Your task to perform on an android device: install app "Truecaller" Image 0: 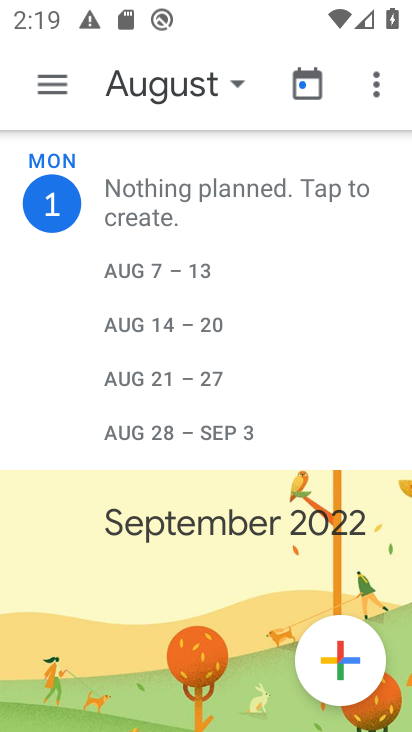
Step 0: press home button
Your task to perform on an android device: install app "Truecaller" Image 1: 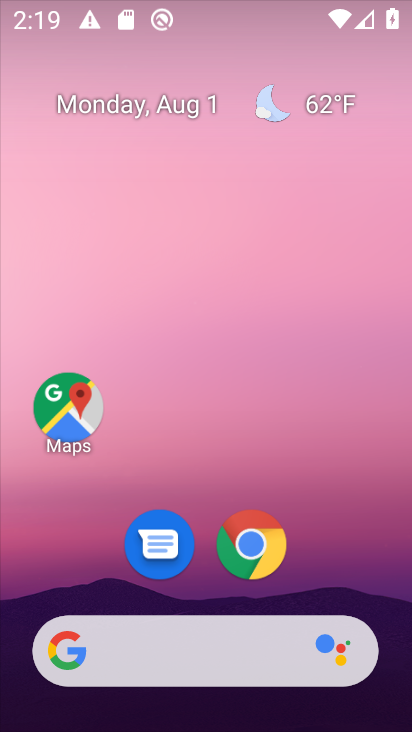
Step 1: drag from (380, 587) to (285, 48)
Your task to perform on an android device: install app "Truecaller" Image 2: 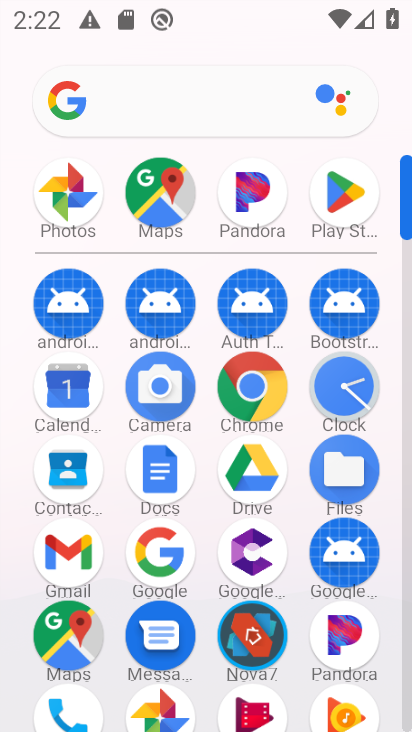
Step 2: click (345, 200)
Your task to perform on an android device: install app "Truecaller" Image 3: 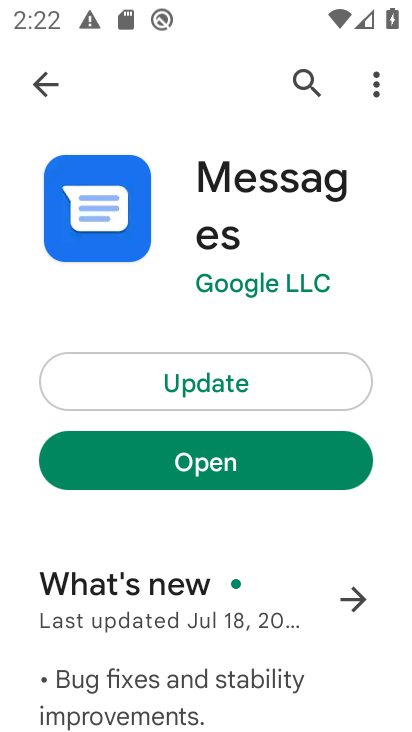
Step 3: press back button
Your task to perform on an android device: install app "Truecaller" Image 4: 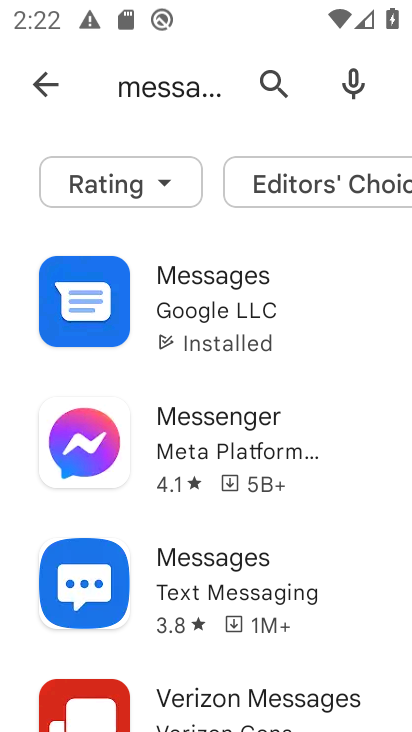
Step 4: press back button
Your task to perform on an android device: install app "Truecaller" Image 5: 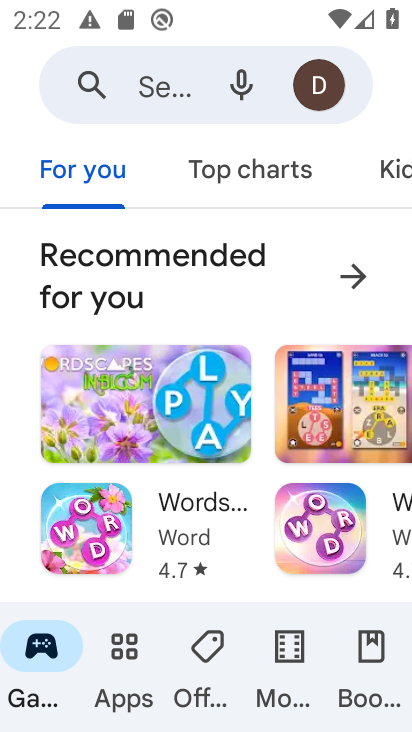
Step 5: click (139, 76)
Your task to perform on an android device: install app "Truecaller" Image 6: 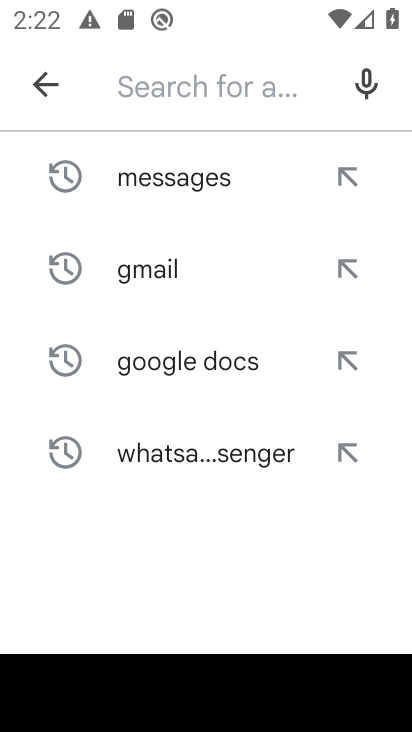
Step 6: type "Truecaller"
Your task to perform on an android device: install app "Truecaller" Image 7: 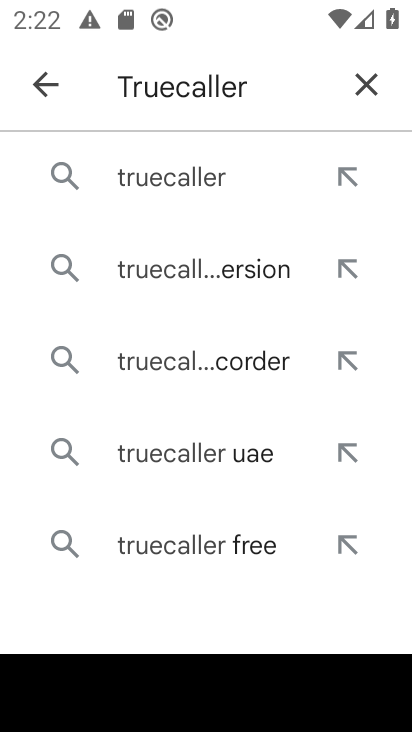
Step 7: click (139, 161)
Your task to perform on an android device: install app "Truecaller" Image 8: 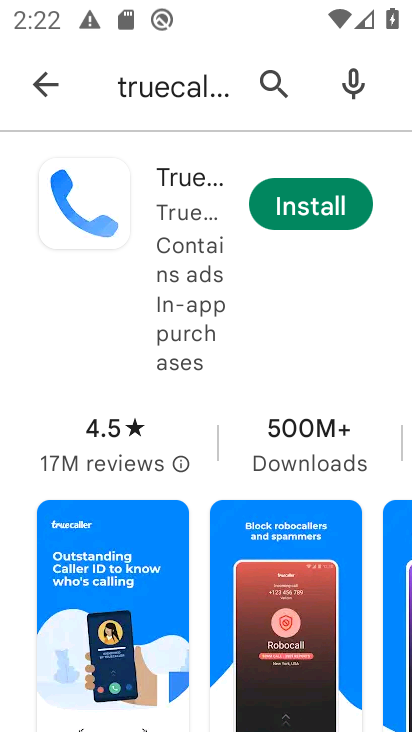
Step 8: click (335, 197)
Your task to perform on an android device: install app "Truecaller" Image 9: 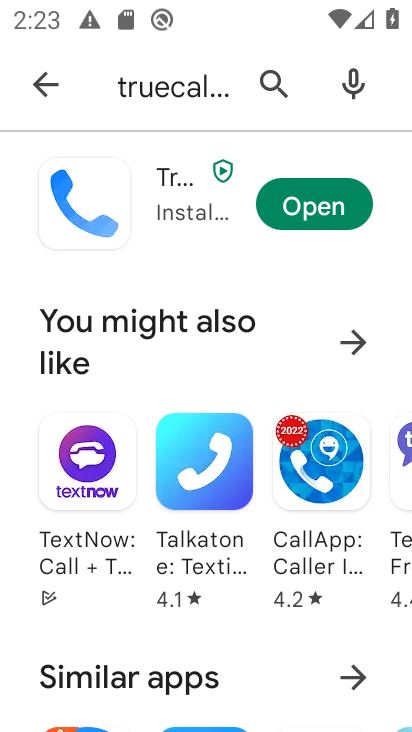
Step 9: task complete